Your task to perform on an android device: find snoozed emails in the gmail app Image 0: 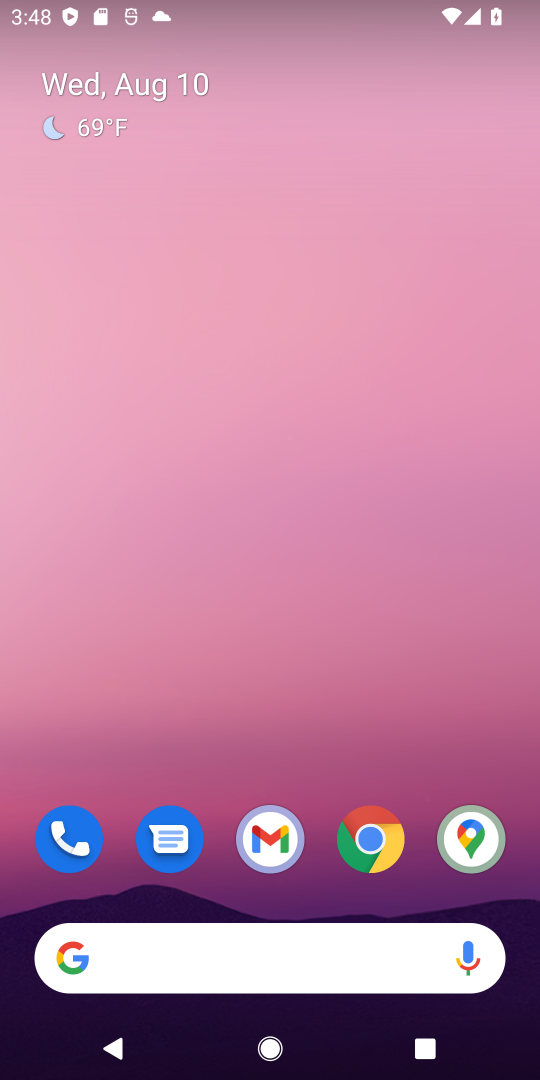
Step 0: click (273, 827)
Your task to perform on an android device: find snoozed emails in the gmail app Image 1: 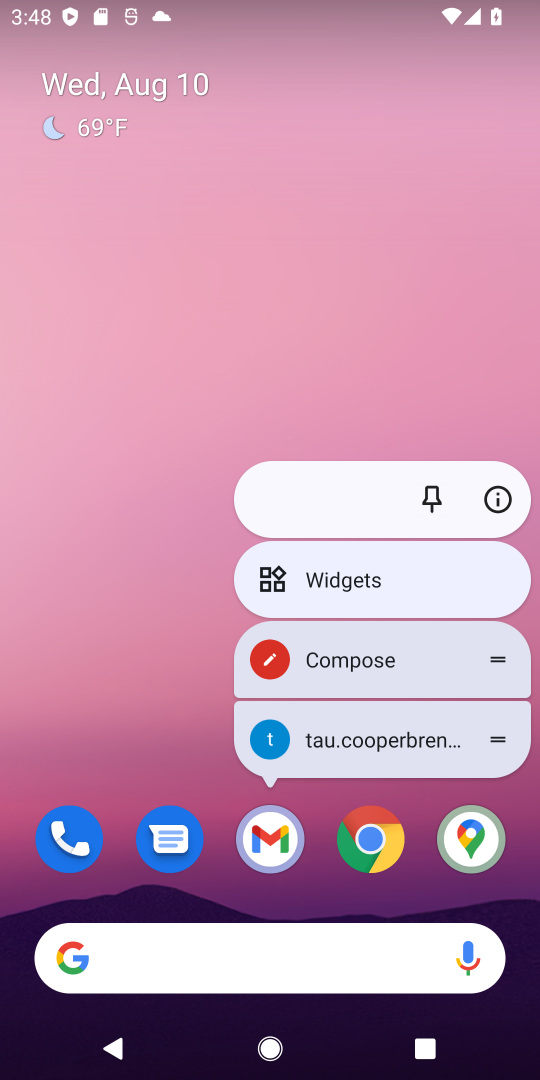
Step 1: click (273, 829)
Your task to perform on an android device: find snoozed emails in the gmail app Image 2: 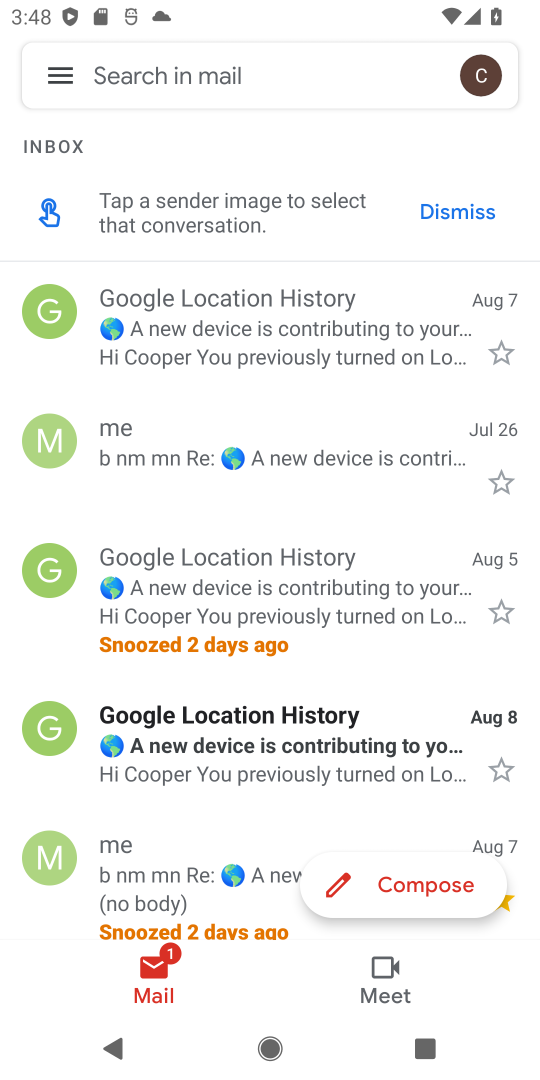
Step 2: click (66, 73)
Your task to perform on an android device: find snoozed emails in the gmail app Image 3: 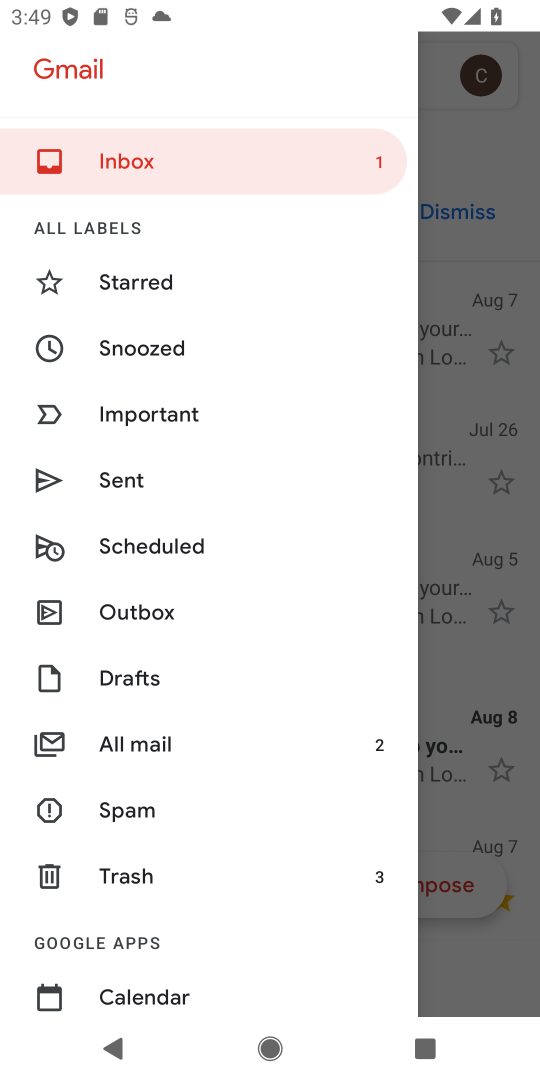
Step 3: click (139, 338)
Your task to perform on an android device: find snoozed emails in the gmail app Image 4: 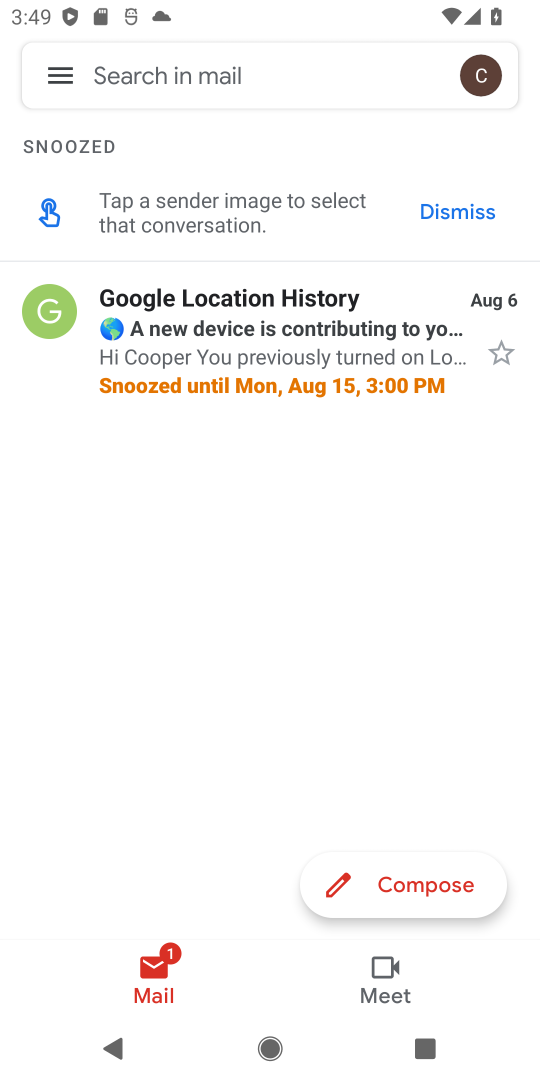
Step 4: task complete